Your task to perform on an android device: change text size in settings app Image 0: 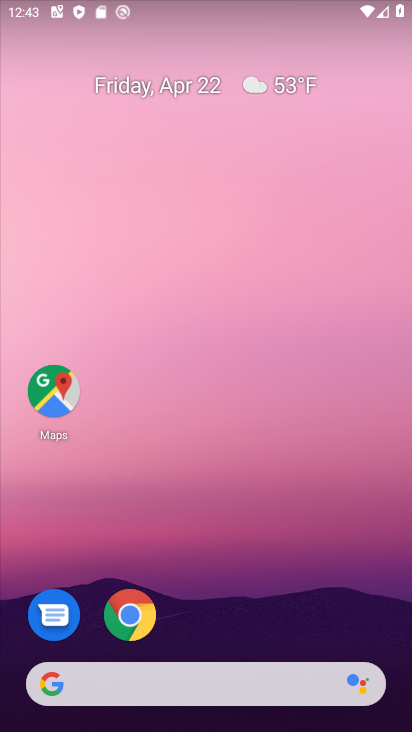
Step 0: drag from (239, 716) to (343, 77)
Your task to perform on an android device: change text size in settings app Image 1: 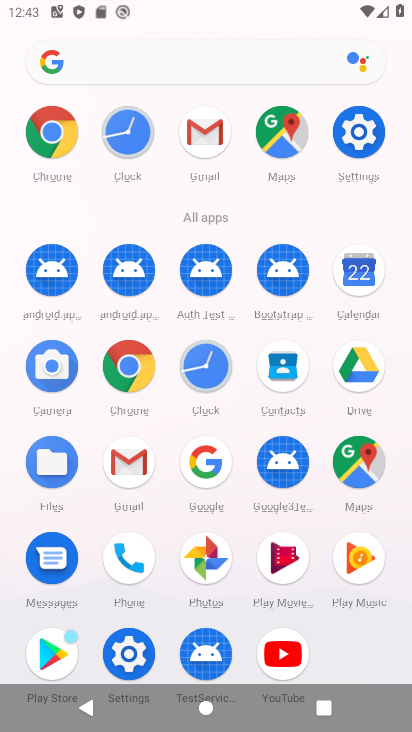
Step 1: click (343, 124)
Your task to perform on an android device: change text size in settings app Image 2: 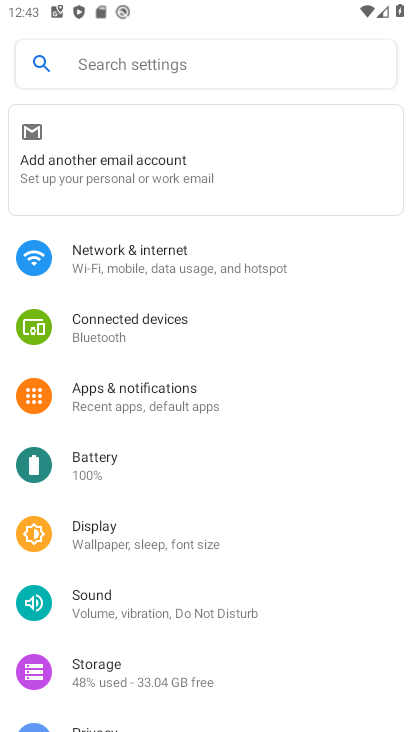
Step 2: drag from (281, 639) to (330, 230)
Your task to perform on an android device: change text size in settings app Image 3: 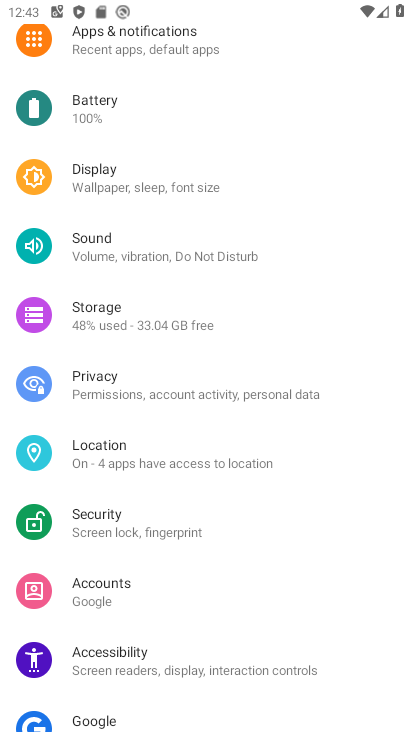
Step 3: click (189, 184)
Your task to perform on an android device: change text size in settings app Image 4: 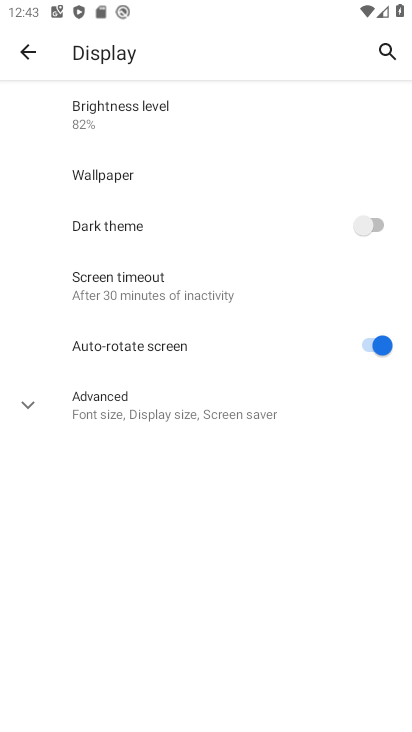
Step 4: click (128, 415)
Your task to perform on an android device: change text size in settings app Image 5: 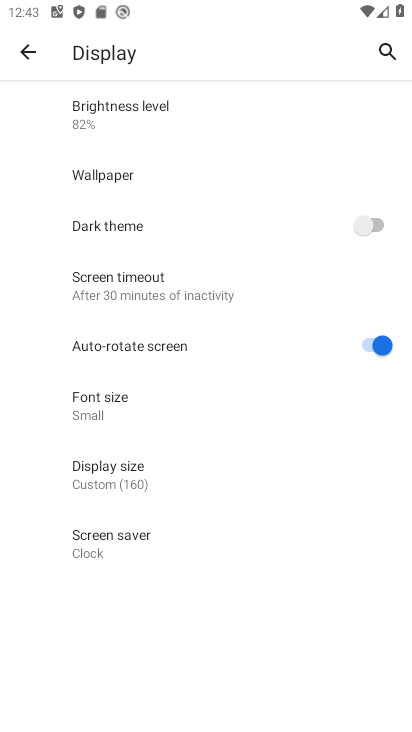
Step 5: click (106, 412)
Your task to perform on an android device: change text size in settings app Image 6: 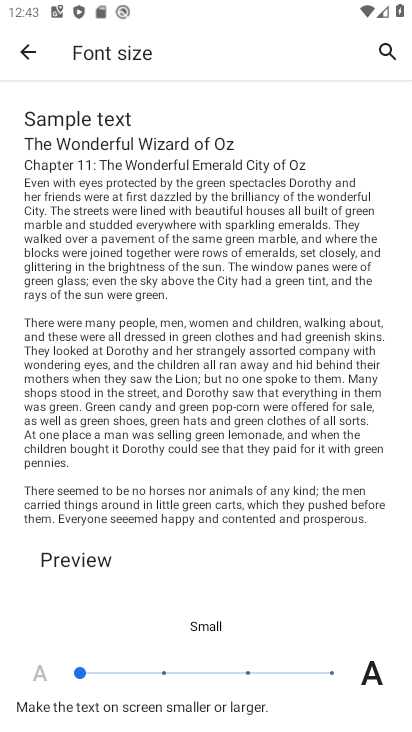
Step 6: click (94, 674)
Your task to perform on an android device: change text size in settings app Image 7: 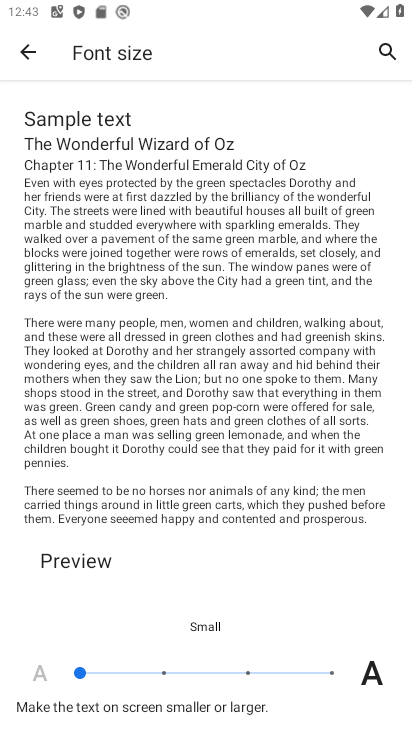
Step 7: click (134, 674)
Your task to perform on an android device: change text size in settings app Image 8: 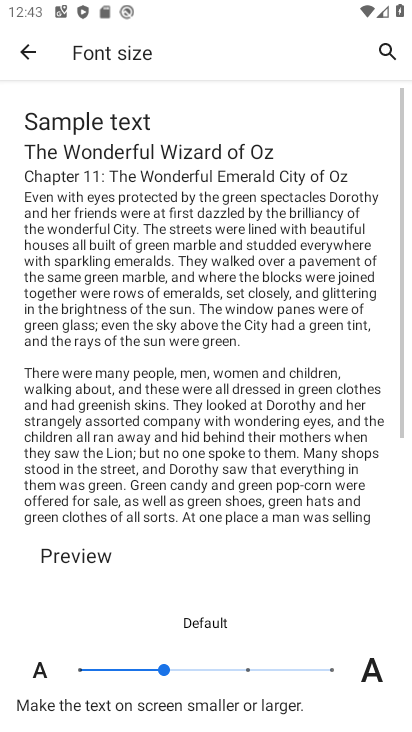
Step 8: task complete